Your task to perform on an android device: Play the last video I watched on Youtube Image 0: 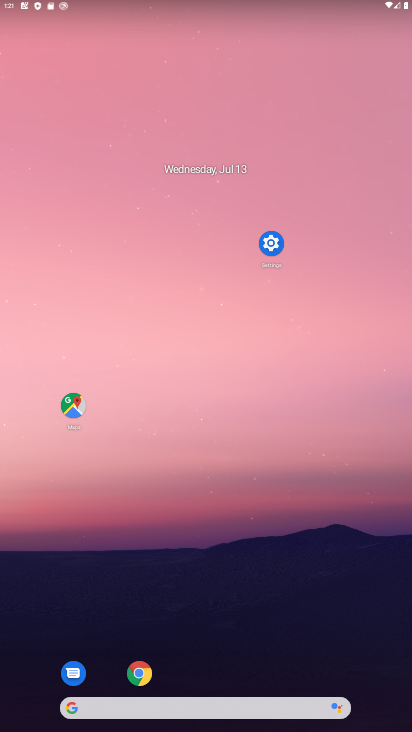
Step 0: drag from (208, 678) to (86, 60)
Your task to perform on an android device: Play the last video I watched on Youtube Image 1: 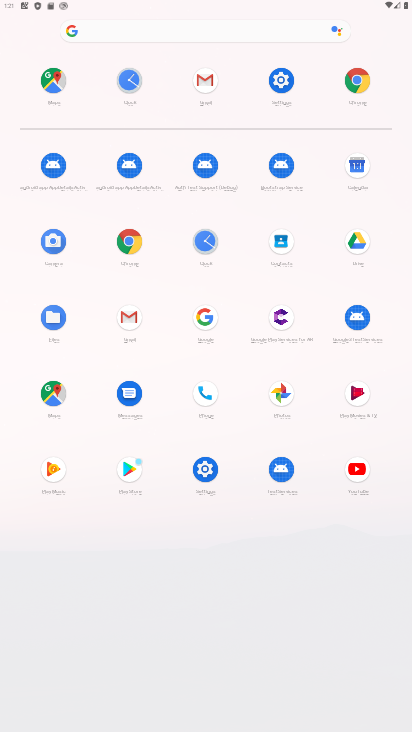
Step 1: click (363, 474)
Your task to perform on an android device: Play the last video I watched on Youtube Image 2: 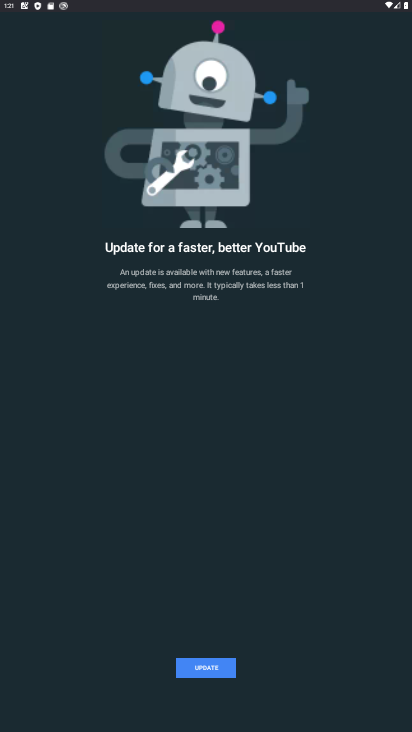
Step 2: click (201, 666)
Your task to perform on an android device: Play the last video I watched on Youtube Image 3: 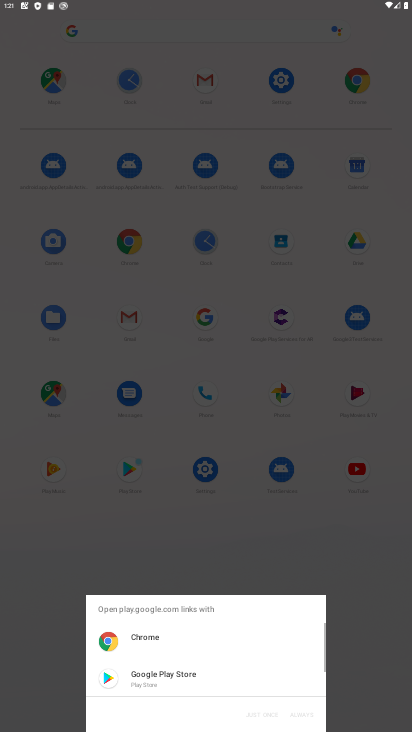
Step 3: click (187, 673)
Your task to perform on an android device: Play the last video I watched on Youtube Image 4: 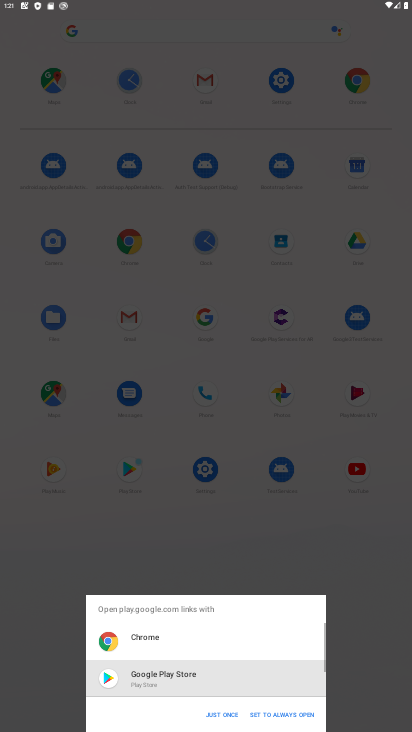
Step 4: click (218, 715)
Your task to perform on an android device: Play the last video I watched on Youtube Image 5: 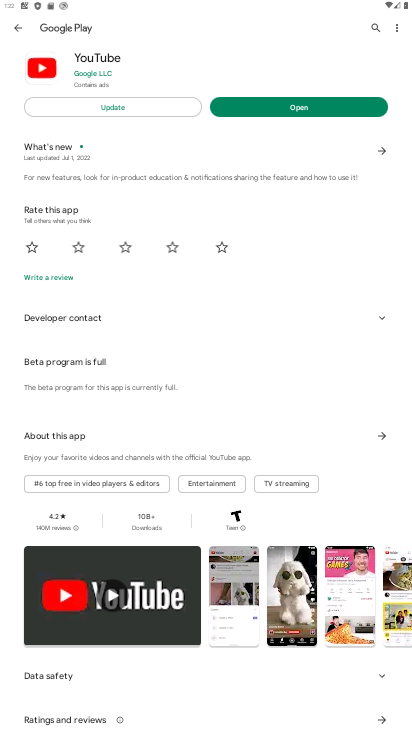
Step 5: click (166, 97)
Your task to perform on an android device: Play the last video I watched on Youtube Image 6: 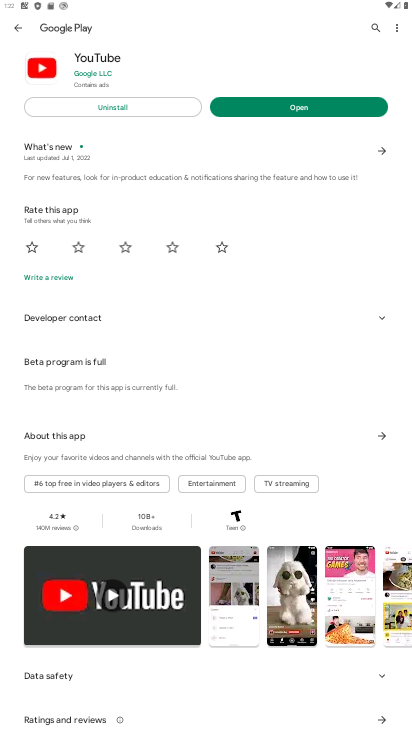
Step 6: click (327, 100)
Your task to perform on an android device: Play the last video I watched on Youtube Image 7: 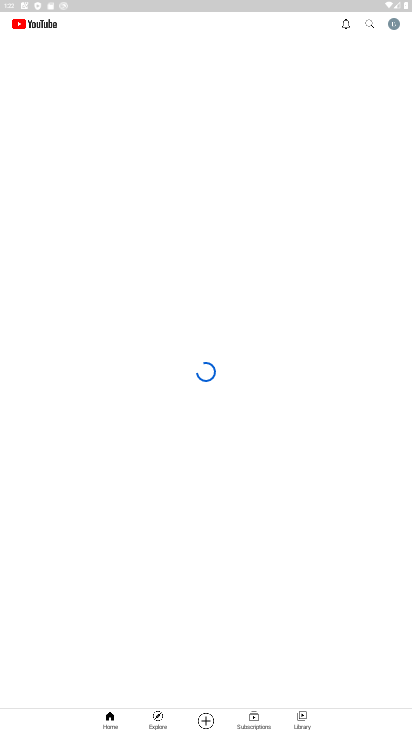
Step 7: click (298, 718)
Your task to perform on an android device: Play the last video I watched on Youtube Image 8: 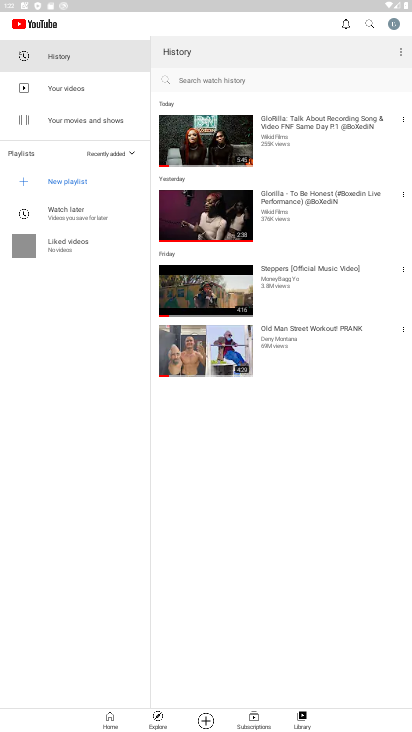
Step 8: click (287, 127)
Your task to perform on an android device: Play the last video I watched on Youtube Image 9: 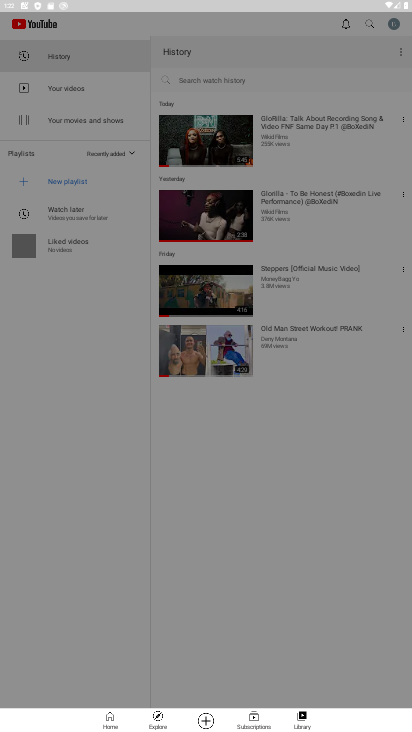
Step 9: task complete